Your task to perform on an android device: turn off wifi Image 0: 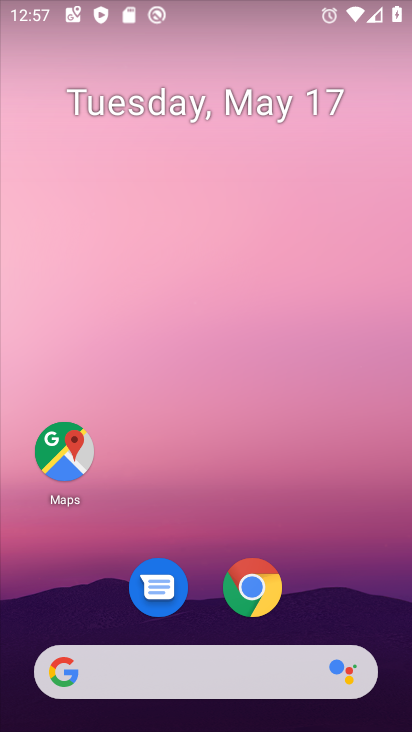
Step 0: drag from (210, 2) to (231, 463)
Your task to perform on an android device: turn off wifi Image 1: 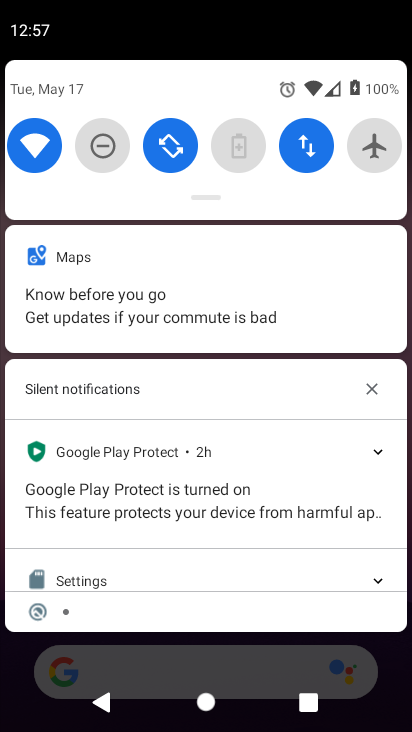
Step 1: click (36, 132)
Your task to perform on an android device: turn off wifi Image 2: 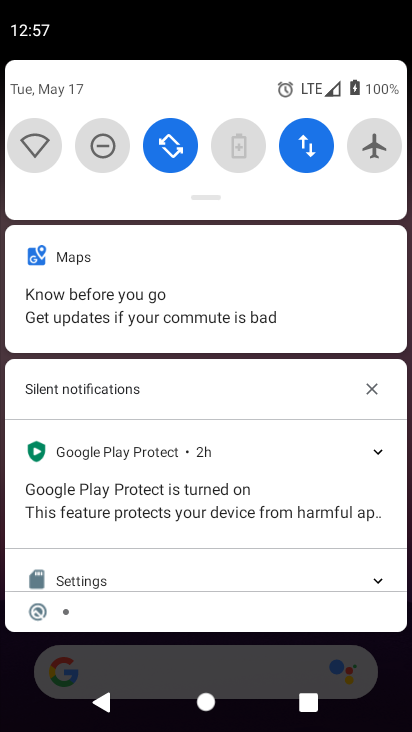
Step 2: task complete